Your task to perform on an android device: clear history in the chrome app Image 0: 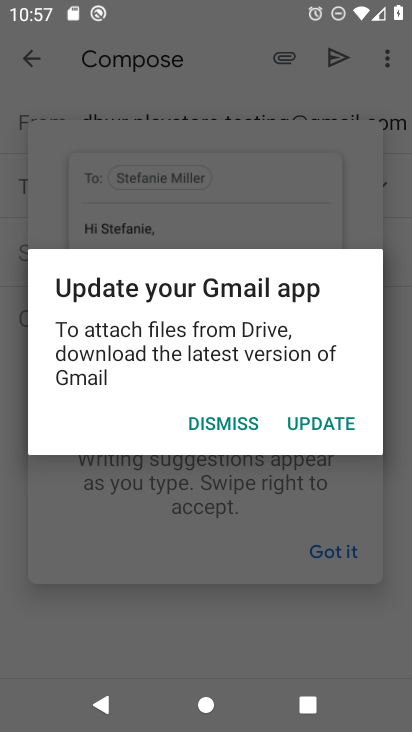
Step 0: press back button
Your task to perform on an android device: clear history in the chrome app Image 1: 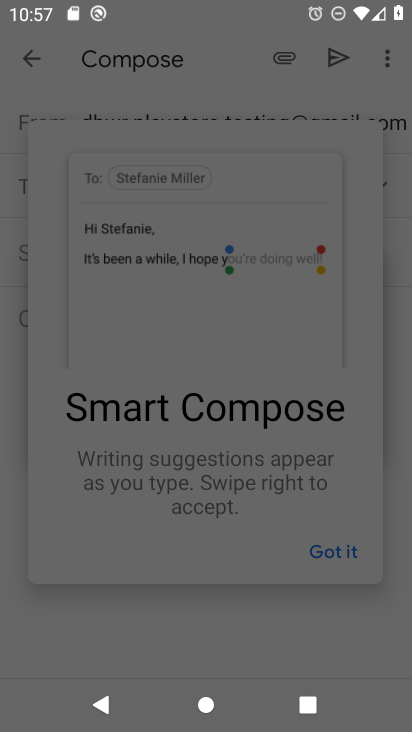
Step 1: press home button
Your task to perform on an android device: clear history in the chrome app Image 2: 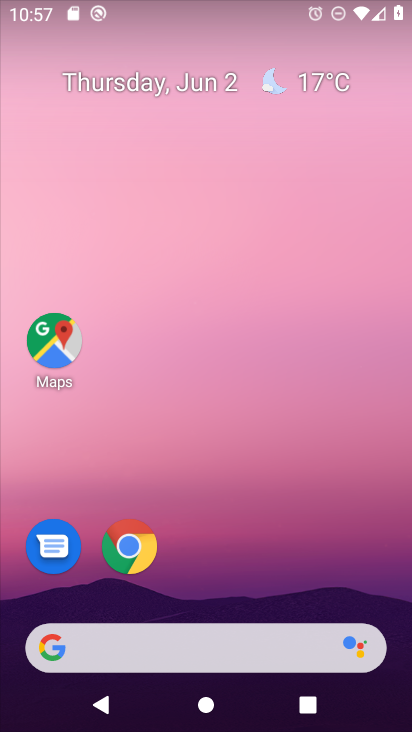
Step 2: drag from (266, 476) to (250, 37)
Your task to perform on an android device: clear history in the chrome app Image 3: 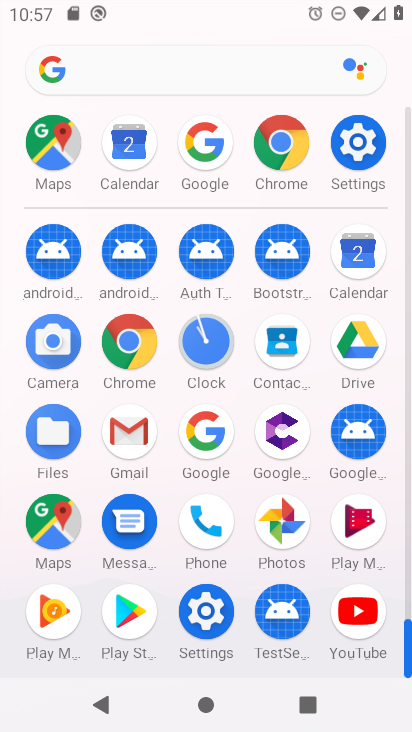
Step 3: click (279, 137)
Your task to perform on an android device: clear history in the chrome app Image 4: 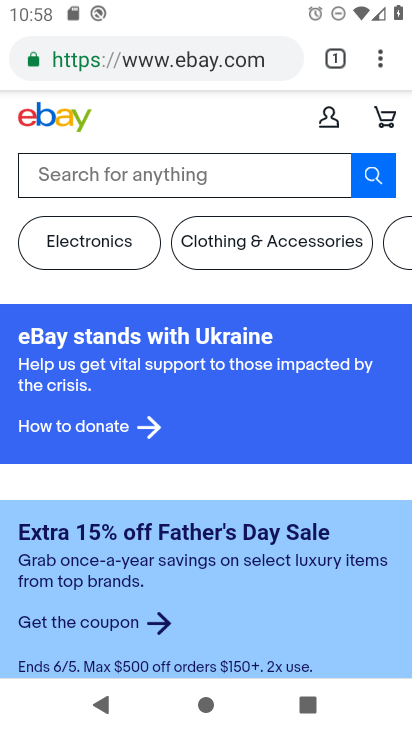
Step 4: drag from (379, 57) to (173, 569)
Your task to perform on an android device: clear history in the chrome app Image 5: 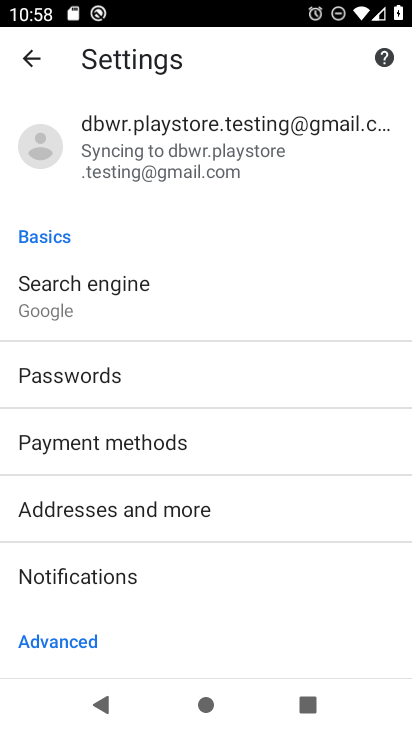
Step 5: drag from (235, 544) to (249, 157)
Your task to perform on an android device: clear history in the chrome app Image 6: 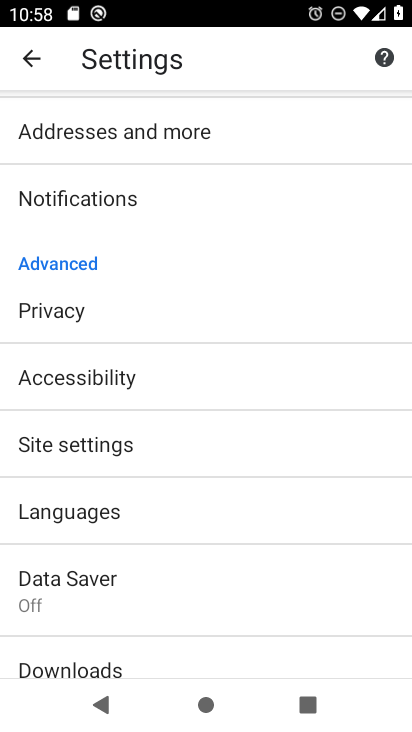
Step 6: click (278, 112)
Your task to perform on an android device: clear history in the chrome app Image 7: 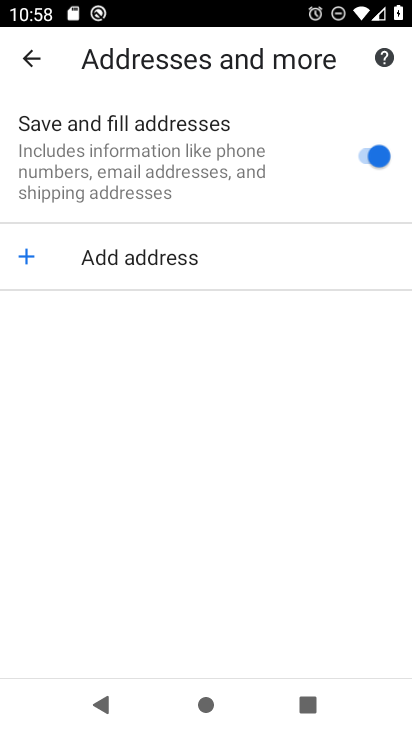
Step 7: click (21, 54)
Your task to perform on an android device: clear history in the chrome app Image 8: 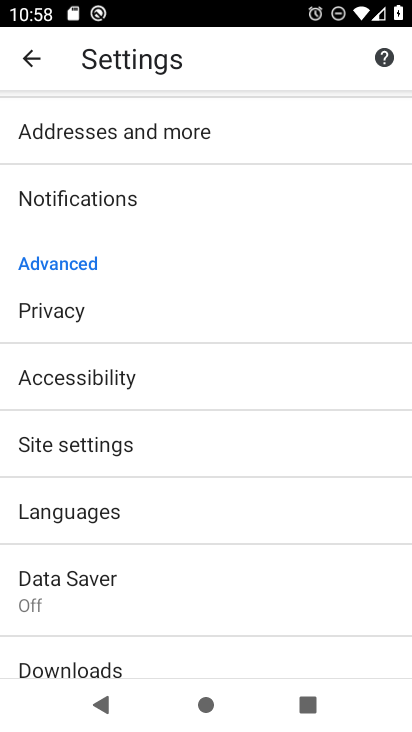
Step 8: click (114, 432)
Your task to perform on an android device: clear history in the chrome app Image 9: 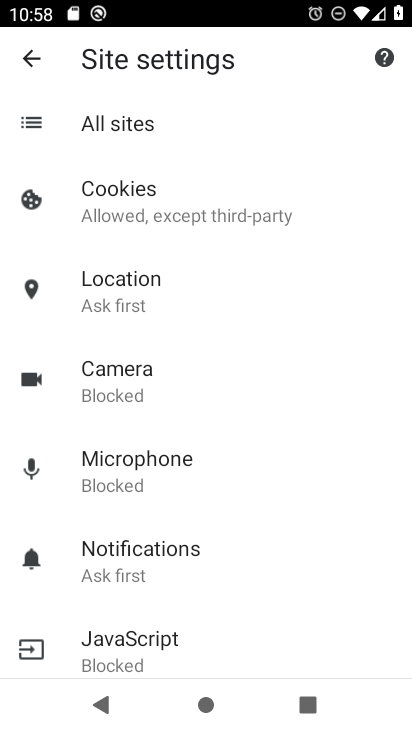
Step 9: click (33, 53)
Your task to perform on an android device: clear history in the chrome app Image 10: 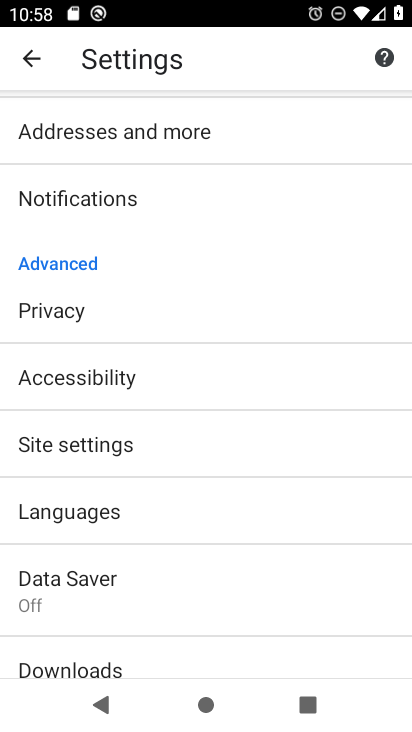
Step 10: drag from (296, 232) to (312, 596)
Your task to perform on an android device: clear history in the chrome app Image 11: 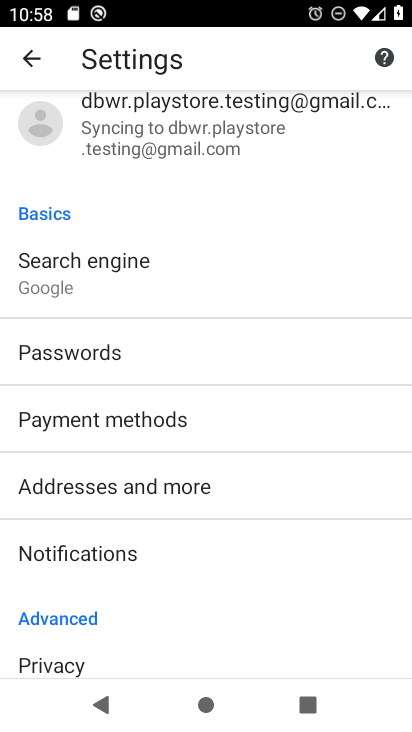
Step 11: drag from (256, 587) to (269, 230)
Your task to perform on an android device: clear history in the chrome app Image 12: 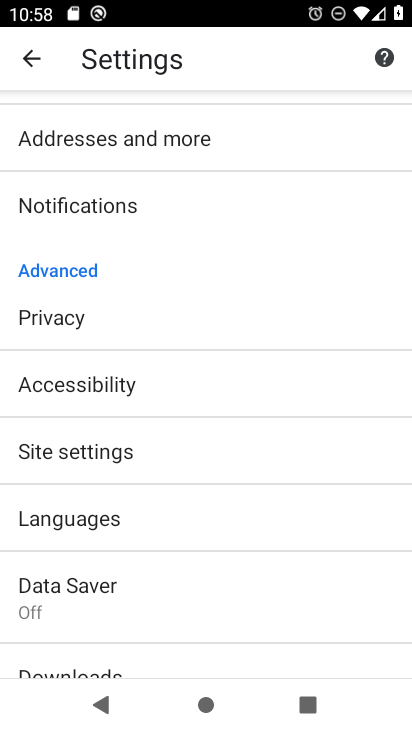
Step 12: click (146, 315)
Your task to perform on an android device: clear history in the chrome app Image 13: 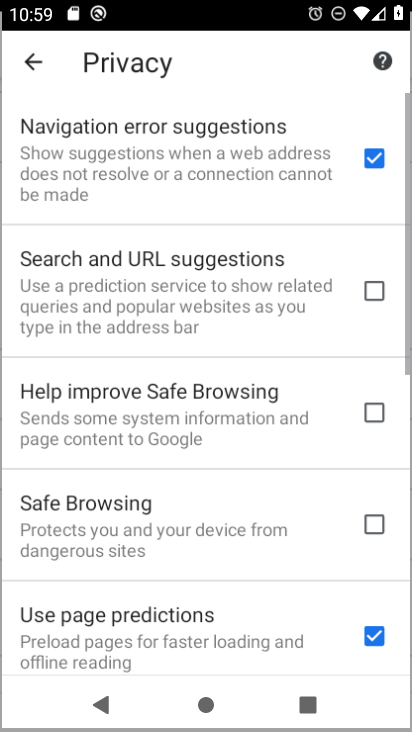
Step 13: click (89, 316)
Your task to perform on an android device: clear history in the chrome app Image 14: 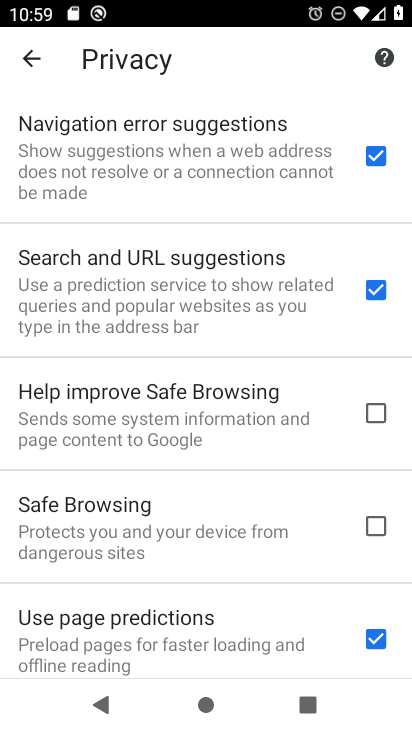
Step 14: drag from (185, 642) to (218, 234)
Your task to perform on an android device: clear history in the chrome app Image 15: 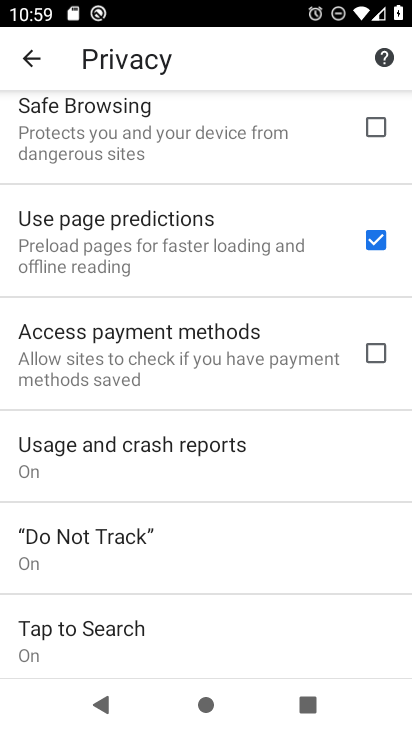
Step 15: drag from (219, 473) to (257, 175)
Your task to perform on an android device: clear history in the chrome app Image 16: 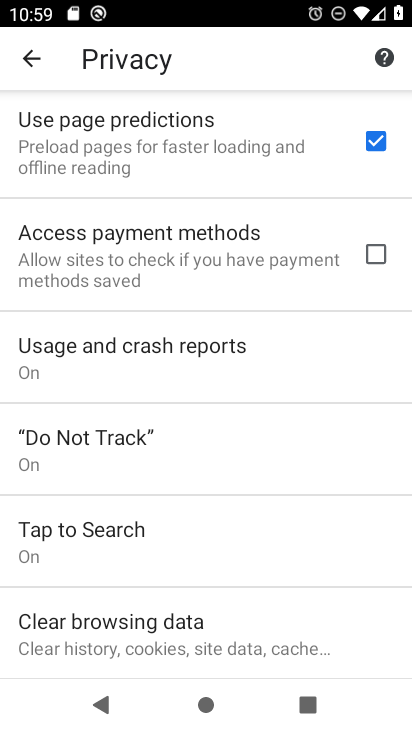
Step 16: click (190, 632)
Your task to perform on an android device: clear history in the chrome app Image 17: 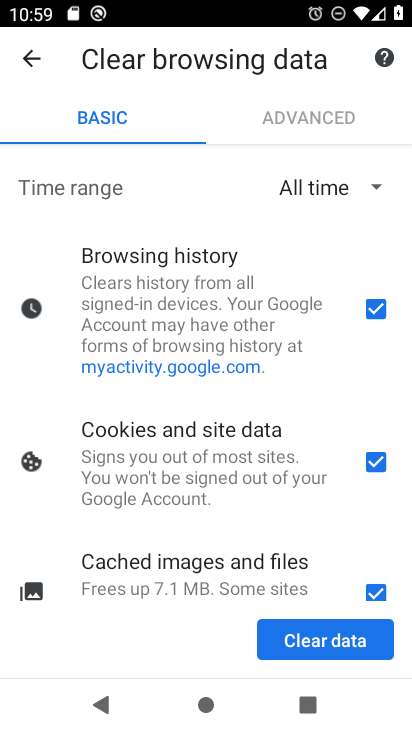
Step 17: click (371, 461)
Your task to perform on an android device: clear history in the chrome app Image 18: 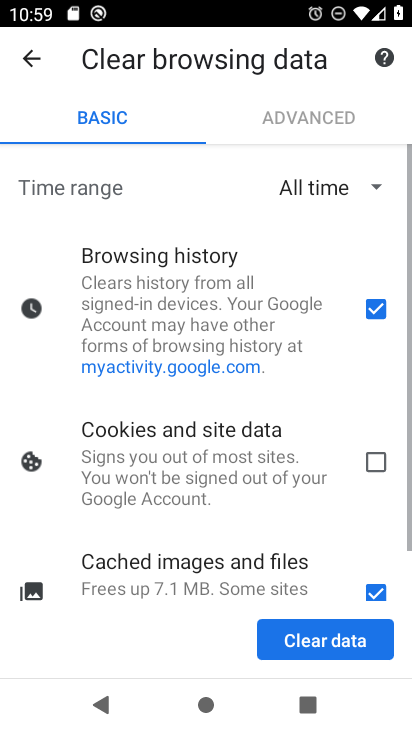
Step 18: click (373, 591)
Your task to perform on an android device: clear history in the chrome app Image 19: 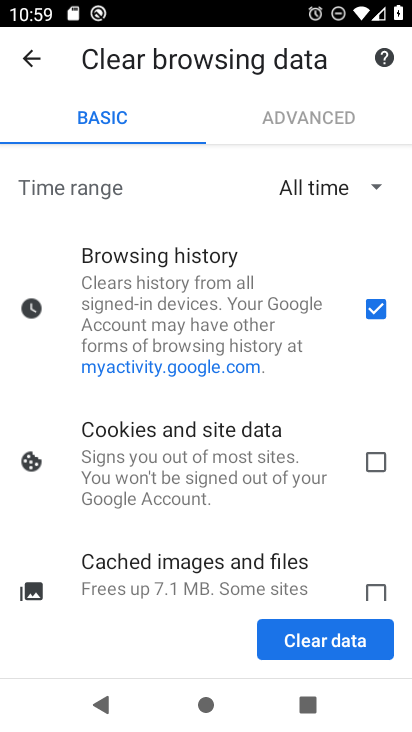
Step 19: click (337, 640)
Your task to perform on an android device: clear history in the chrome app Image 20: 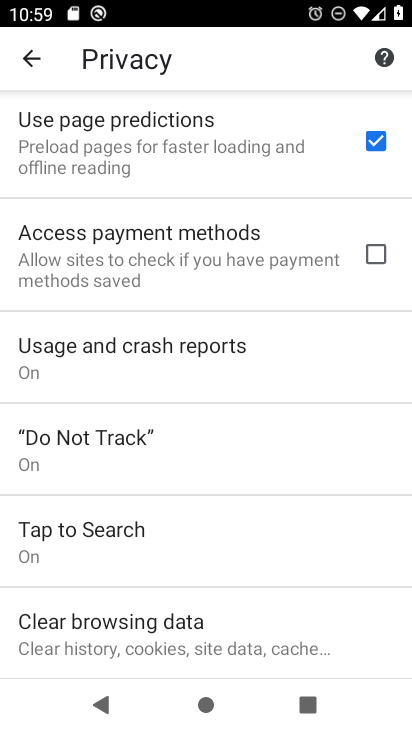
Step 20: click (32, 58)
Your task to perform on an android device: clear history in the chrome app Image 21: 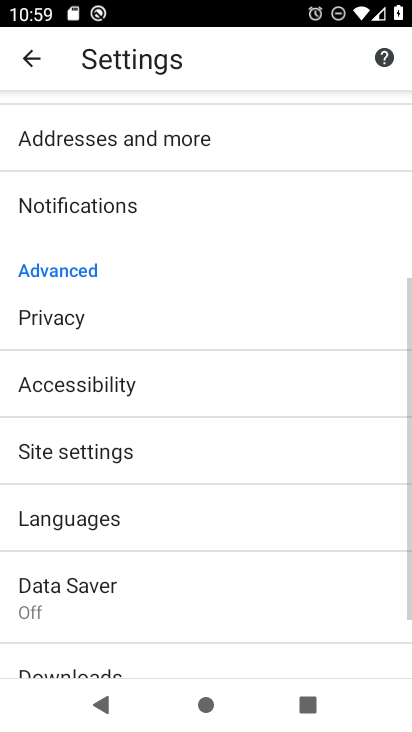
Step 21: task complete